Your task to perform on an android device: Open ESPN.com Image 0: 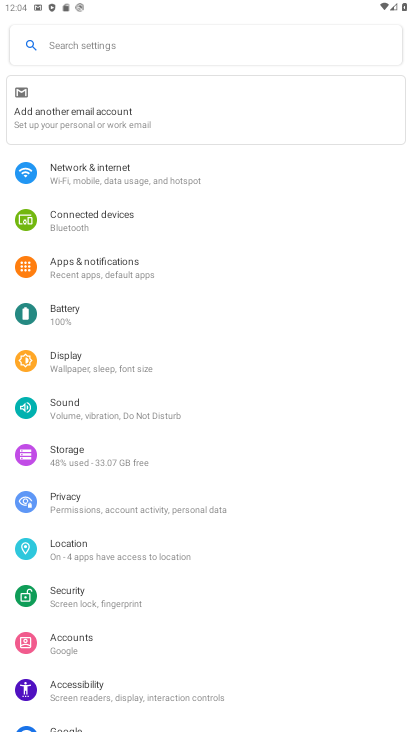
Step 0: press home button
Your task to perform on an android device: Open ESPN.com Image 1: 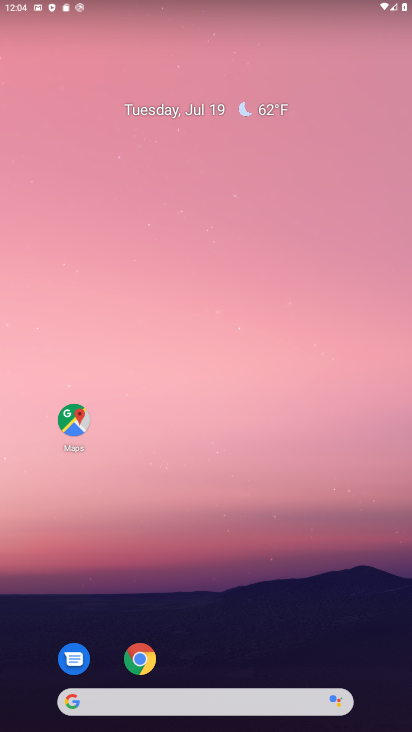
Step 1: drag from (245, 681) to (219, 176)
Your task to perform on an android device: Open ESPN.com Image 2: 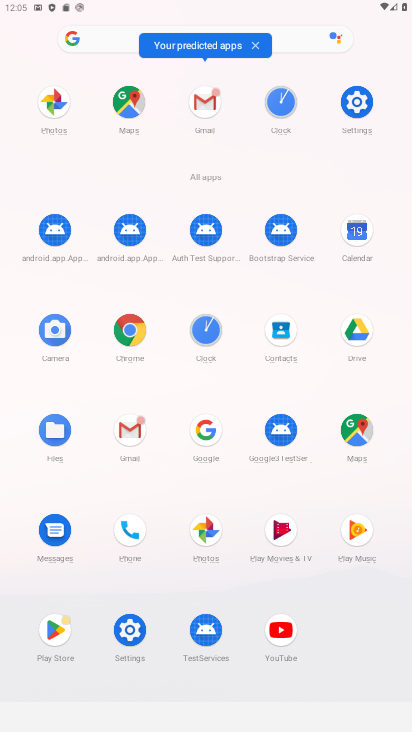
Step 2: click (116, 350)
Your task to perform on an android device: Open ESPN.com Image 3: 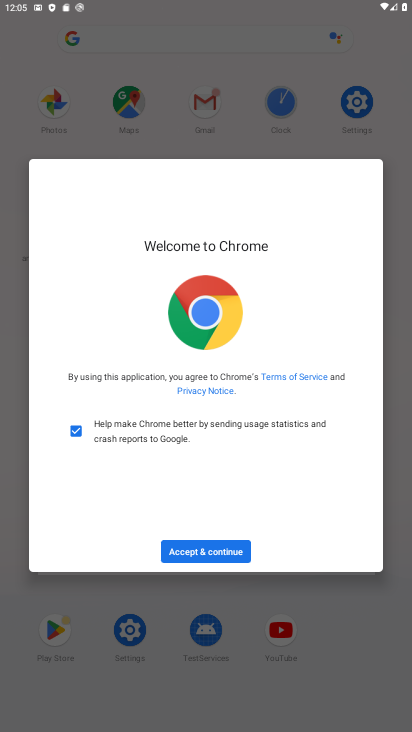
Step 3: click (226, 548)
Your task to perform on an android device: Open ESPN.com Image 4: 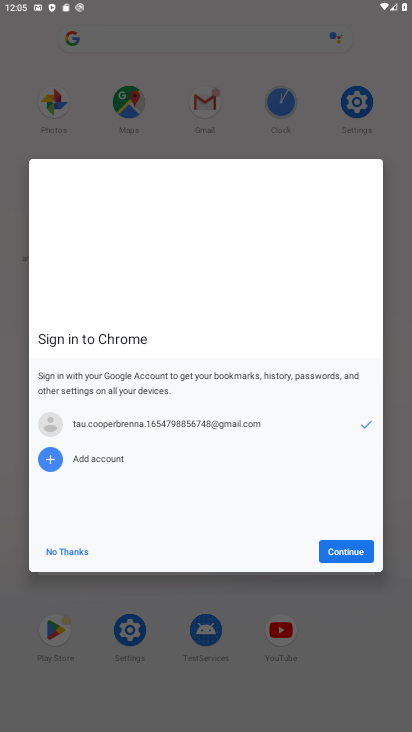
Step 4: click (348, 541)
Your task to perform on an android device: Open ESPN.com Image 5: 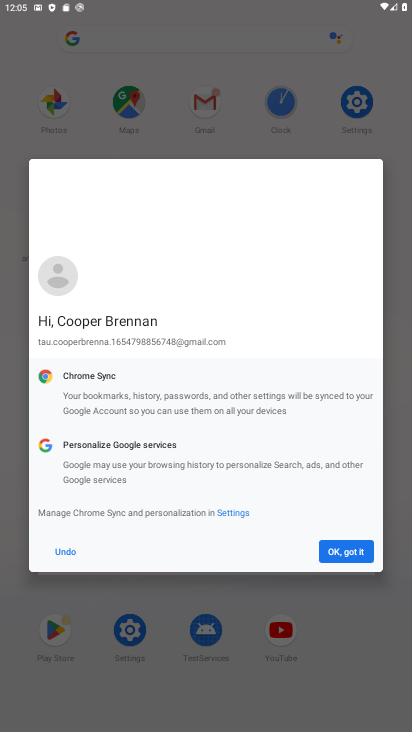
Step 5: click (364, 560)
Your task to perform on an android device: Open ESPN.com Image 6: 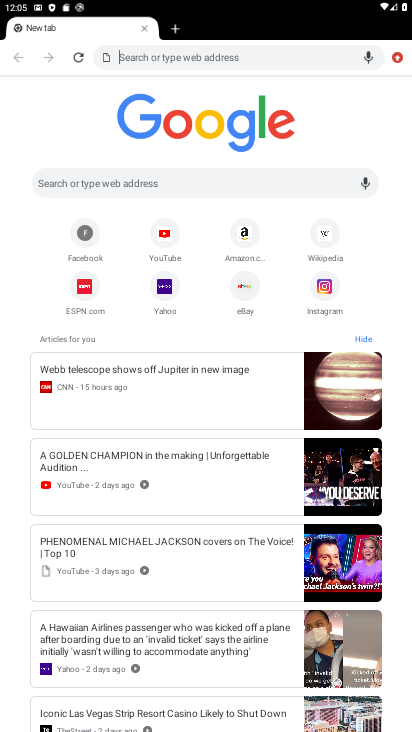
Step 6: click (83, 307)
Your task to perform on an android device: Open ESPN.com Image 7: 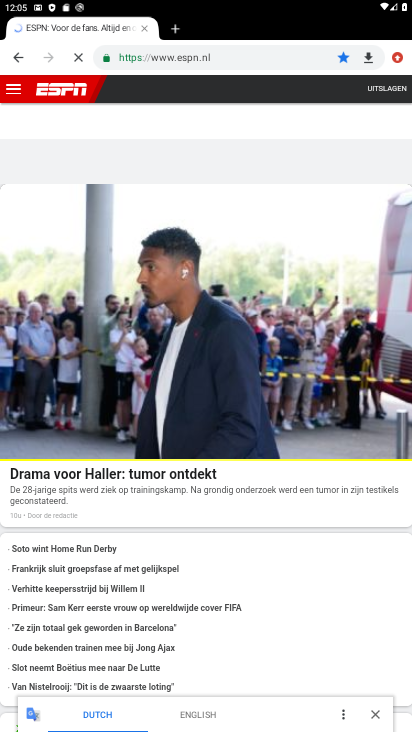
Step 7: task complete